Your task to perform on an android device: search for starred emails in the gmail app Image 0: 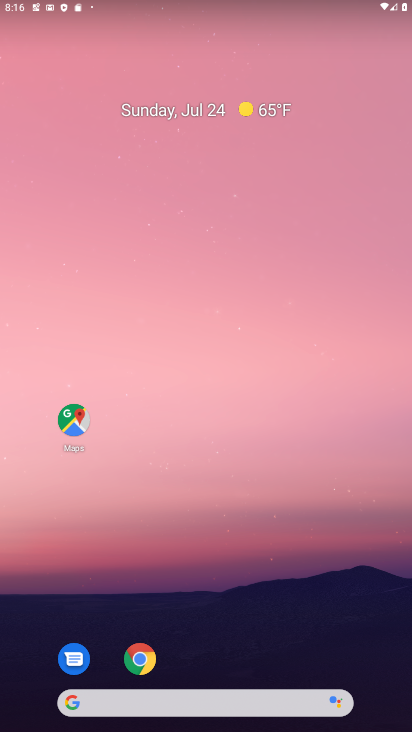
Step 0: drag from (309, 684) to (314, 40)
Your task to perform on an android device: search for starred emails in the gmail app Image 1: 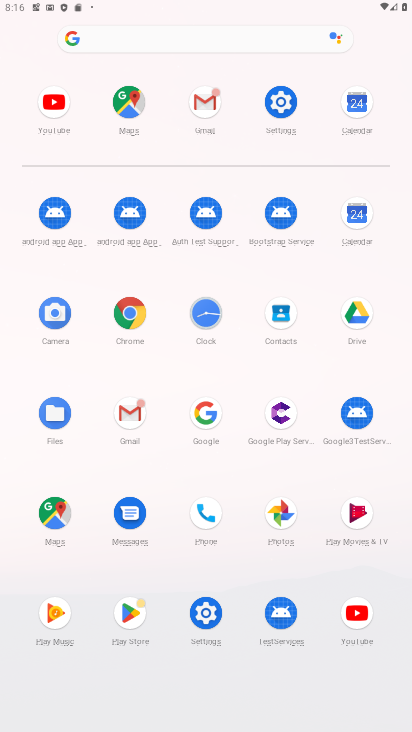
Step 1: click (199, 107)
Your task to perform on an android device: search for starred emails in the gmail app Image 2: 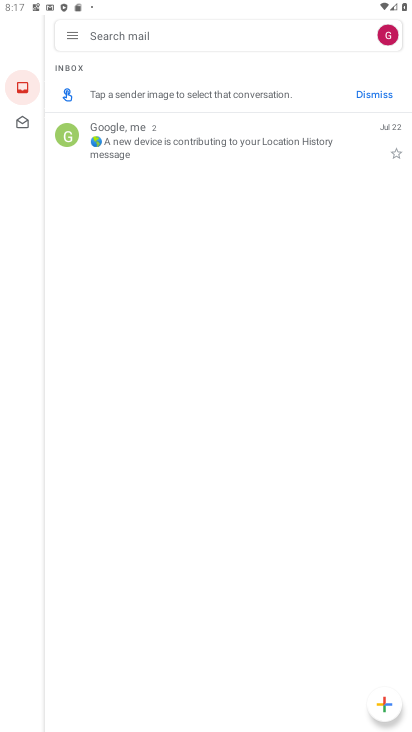
Step 2: click (72, 40)
Your task to perform on an android device: search for starred emails in the gmail app Image 3: 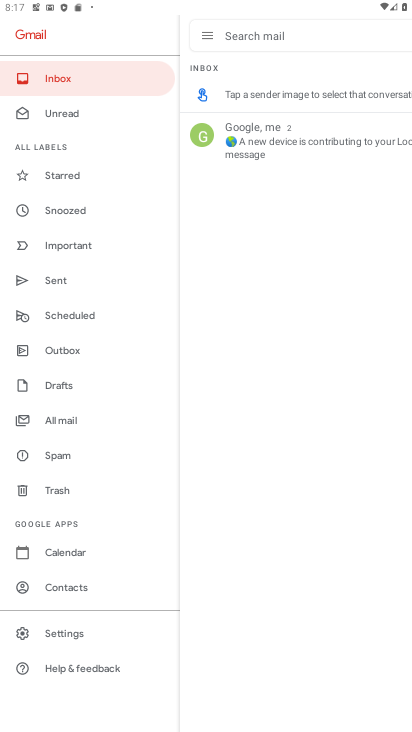
Step 3: click (54, 170)
Your task to perform on an android device: search for starred emails in the gmail app Image 4: 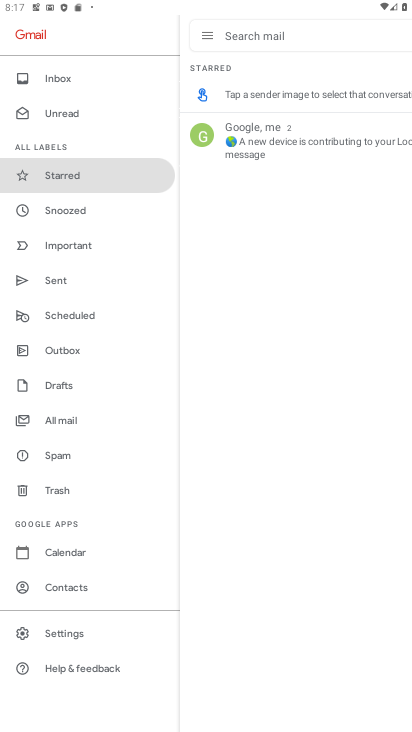
Step 4: task complete